Your task to perform on an android device: Set the phone to "Do not disturb". Image 0: 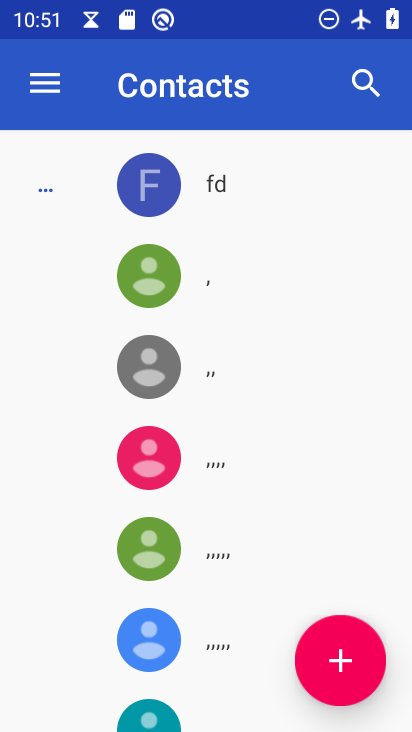
Step 0: press home button
Your task to perform on an android device: Set the phone to "Do not disturb". Image 1: 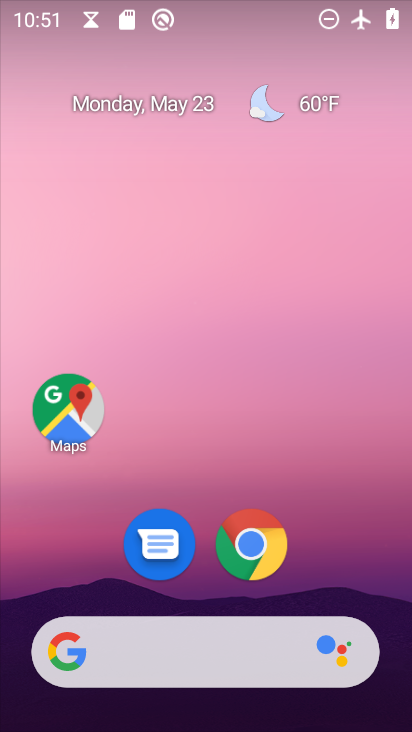
Step 1: drag from (303, 491) to (74, 150)
Your task to perform on an android device: Set the phone to "Do not disturb". Image 2: 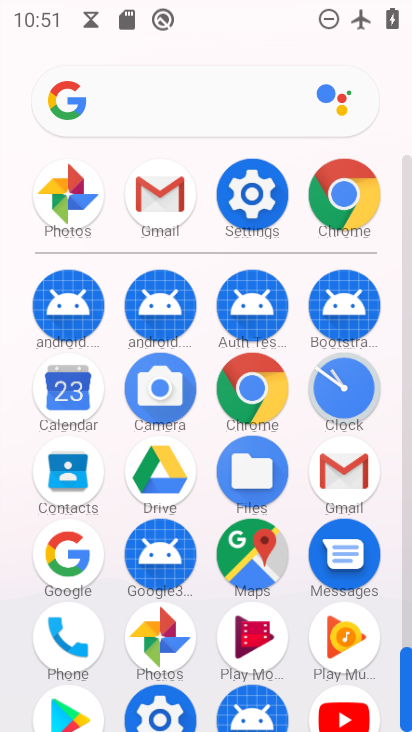
Step 2: click (255, 211)
Your task to perform on an android device: Set the phone to "Do not disturb". Image 3: 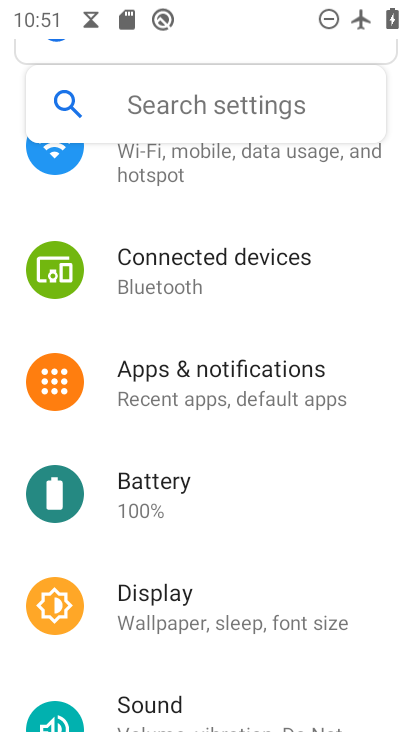
Step 3: drag from (237, 627) to (206, 370)
Your task to perform on an android device: Set the phone to "Do not disturb". Image 4: 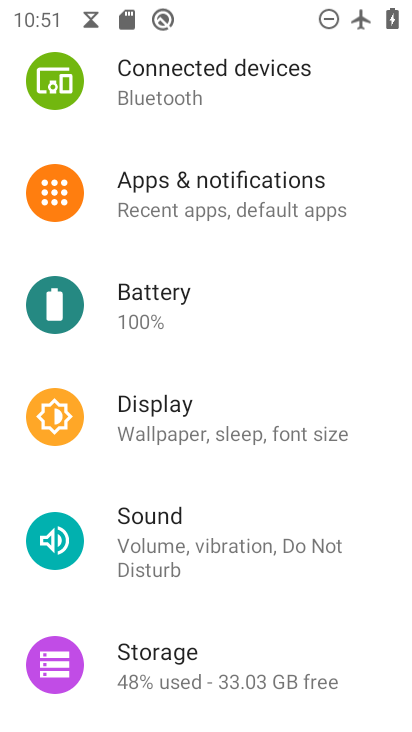
Step 4: click (172, 548)
Your task to perform on an android device: Set the phone to "Do not disturb". Image 5: 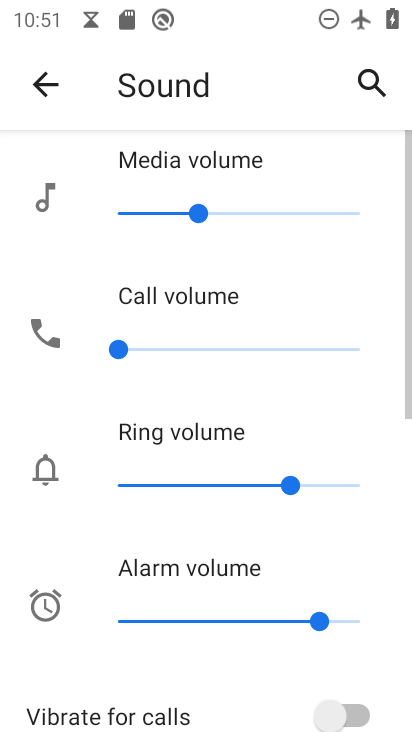
Step 5: task complete